Your task to perform on an android device: Open the calendar app, open the side menu, and click the "Day" option Image 0: 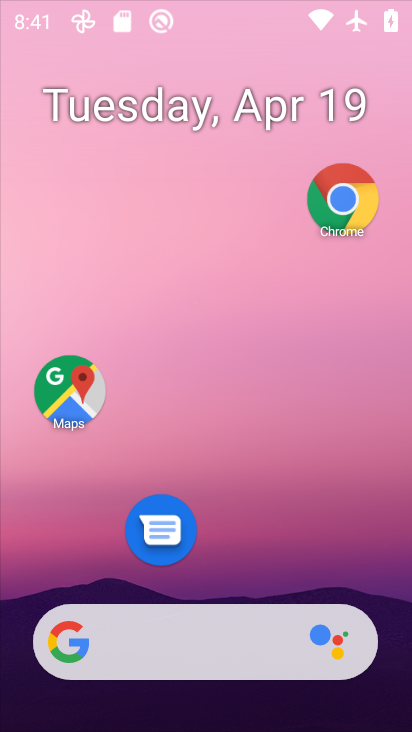
Step 0: click (335, 202)
Your task to perform on an android device: Open the calendar app, open the side menu, and click the "Day" option Image 1: 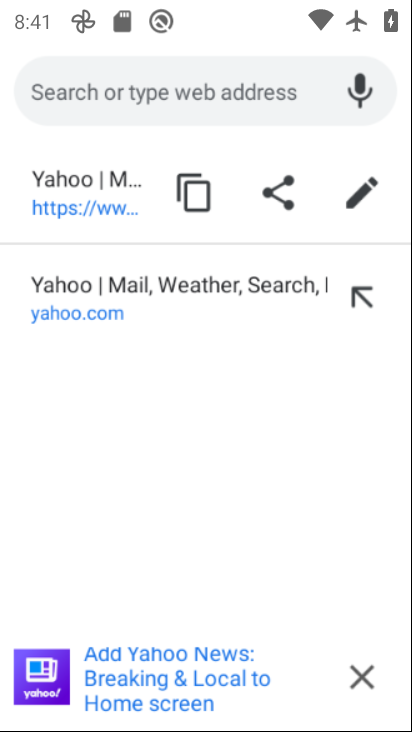
Step 1: drag from (215, 567) to (272, 249)
Your task to perform on an android device: Open the calendar app, open the side menu, and click the "Day" option Image 2: 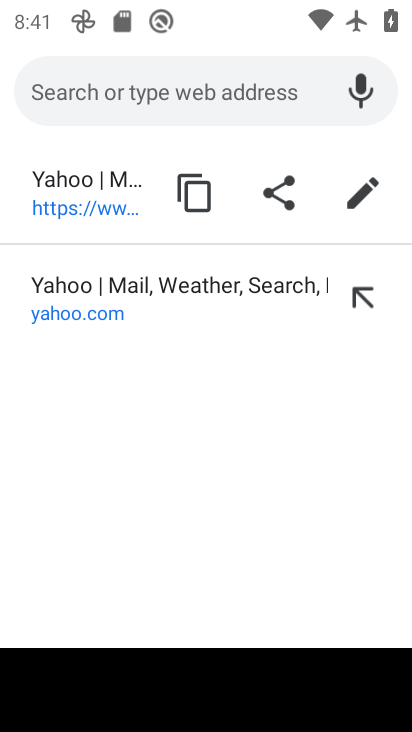
Step 2: press home button
Your task to perform on an android device: Open the calendar app, open the side menu, and click the "Day" option Image 3: 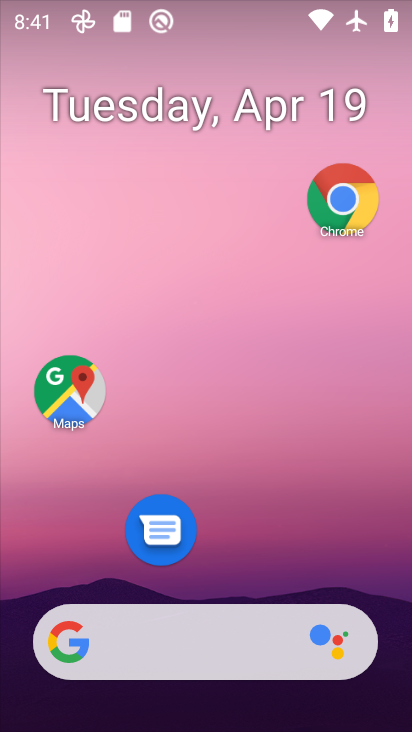
Step 3: drag from (210, 548) to (292, 121)
Your task to perform on an android device: Open the calendar app, open the side menu, and click the "Day" option Image 4: 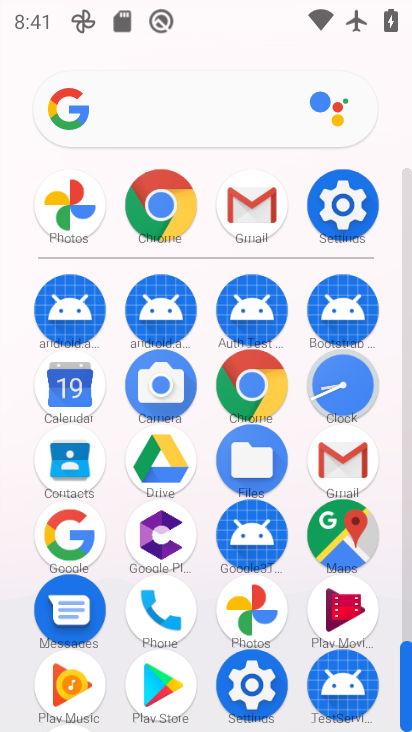
Step 4: click (73, 396)
Your task to perform on an android device: Open the calendar app, open the side menu, and click the "Day" option Image 5: 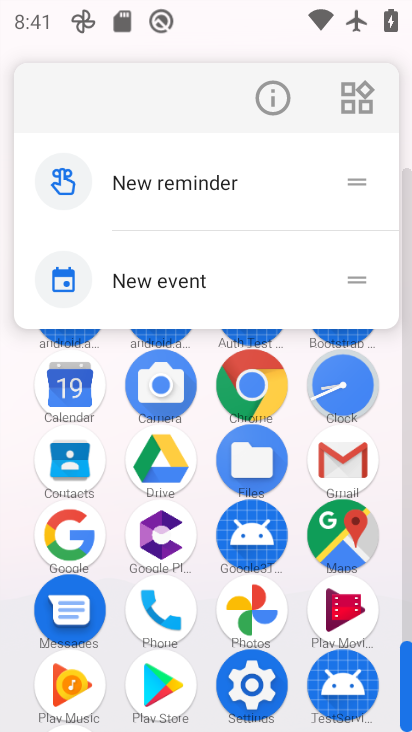
Step 5: click (270, 99)
Your task to perform on an android device: Open the calendar app, open the side menu, and click the "Day" option Image 6: 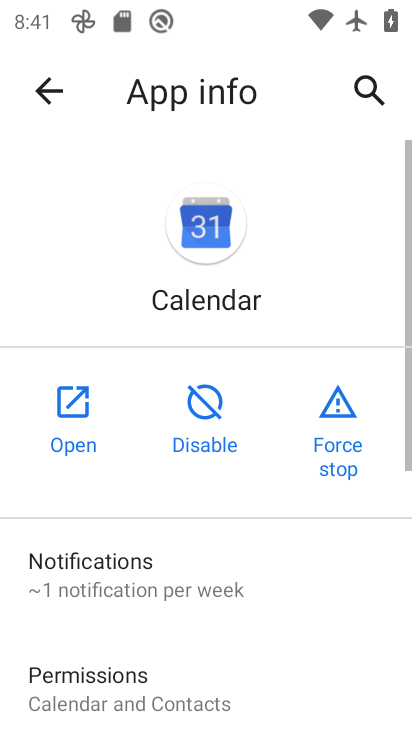
Step 6: click (75, 411)
Your task to perform on an android device: Open the calendar app, open the side menu, and click the "Day" option Image 7: 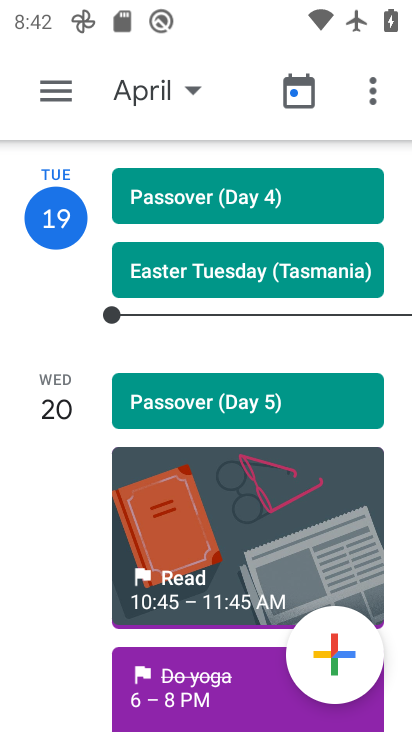
Step 7: click (75, 86)
Your task to perform on an android device: Open the calendar app, open the side menu, and click the "Day" option Image 8: 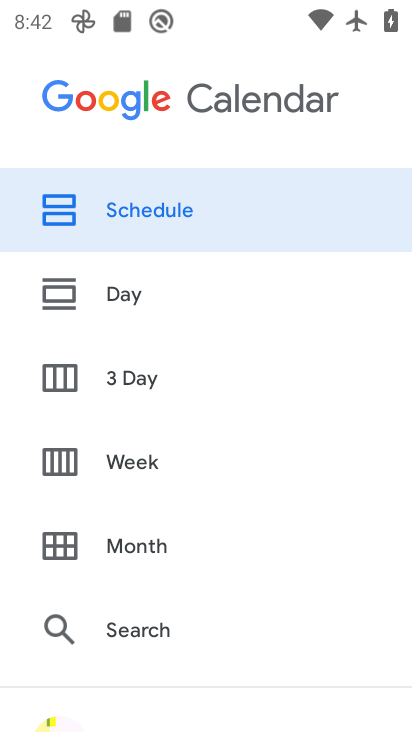
Step 8: click (157, 290)
Your task to perform on an android device: Open the calendar app, open the side menu, and click the "Day" option Image 9: 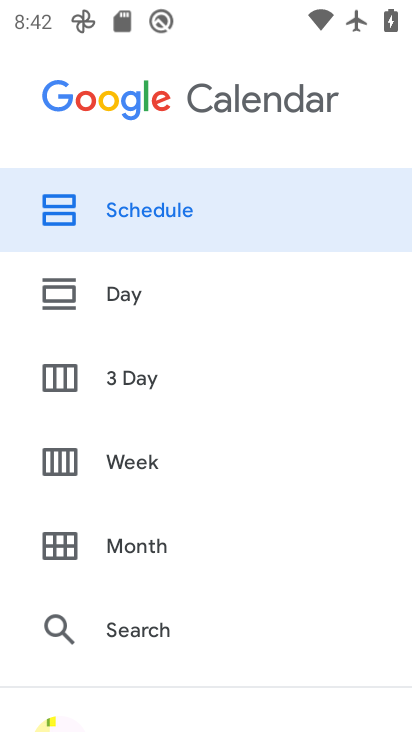
Step 9: click (126, 303)
Your task to perform on an android device: Open the calendar app, open the side menu, and click the "Day" option Image 10: 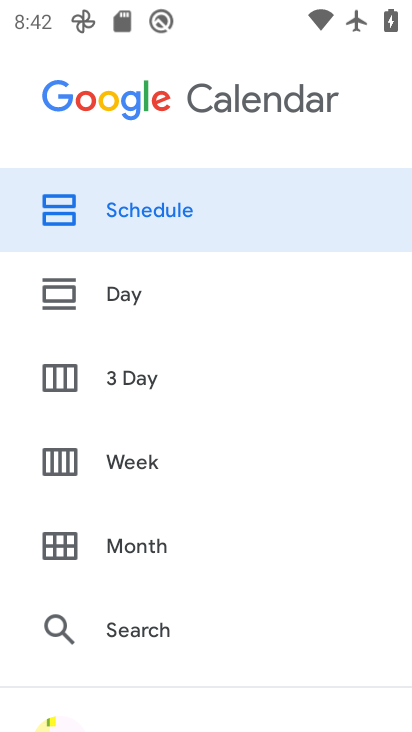
Step 10: click (189, 296)
Your task to perform on an android device: Open the calendar app, open the side menu, and click the "Day" option Image 11: 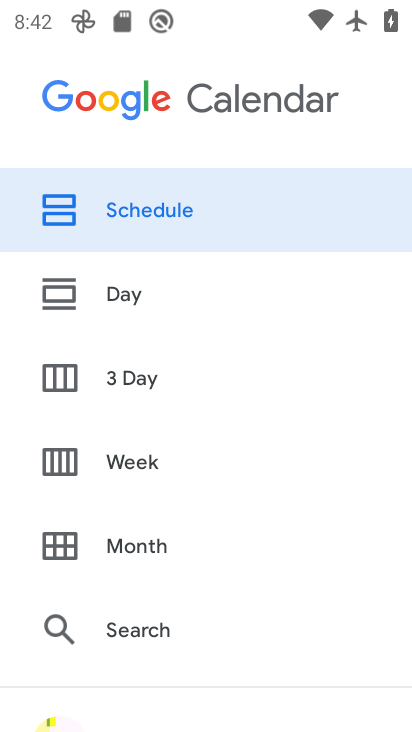
Step 11: click (148, 292)
Your task to perform on an android device: Open the calendar app, open the side menu, and click the "Day" option Image 12: 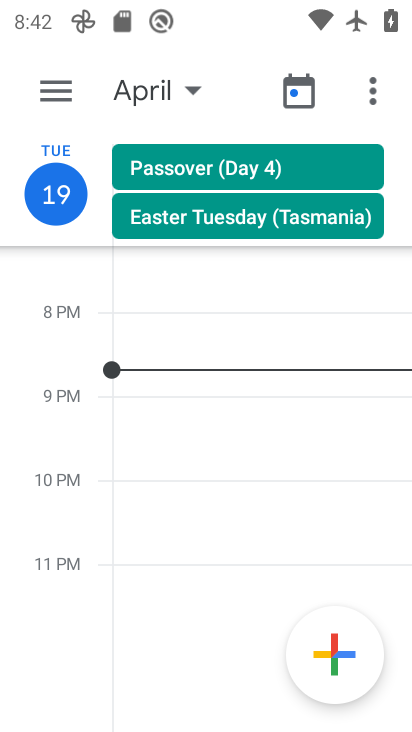
Step 12: task complete